Your task to perform on an android device: What's the weather going to be tomorrow? Image 0: 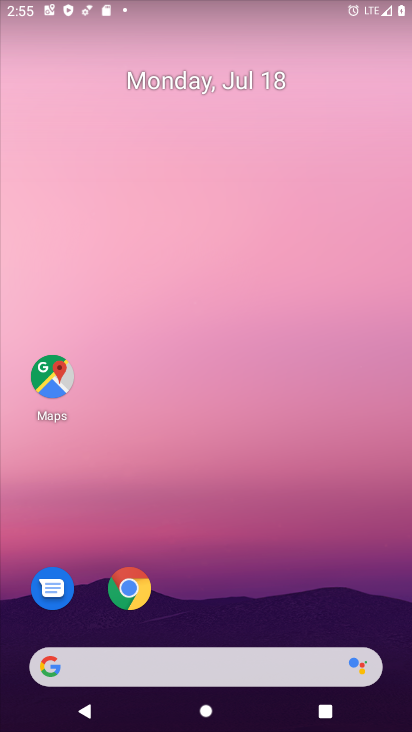
Step 0: click (215, 681)
Your task to perform on an android device: What's the weather going to be tomorrow? Image 1: 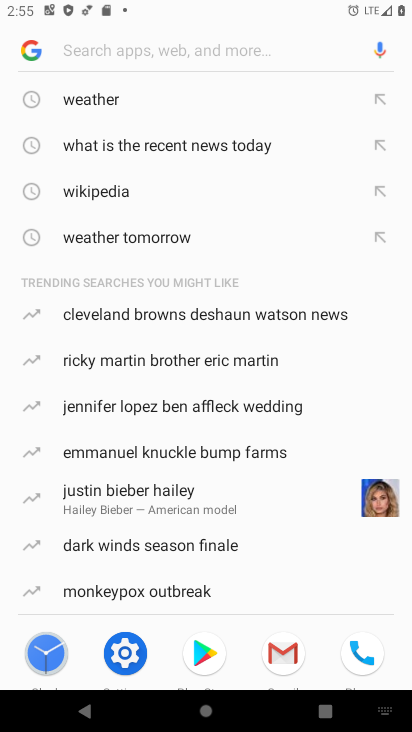
Step 1: click (111, 100)
Your task to perform on an android device: What's the weather going to be tomorrow? Image 2: 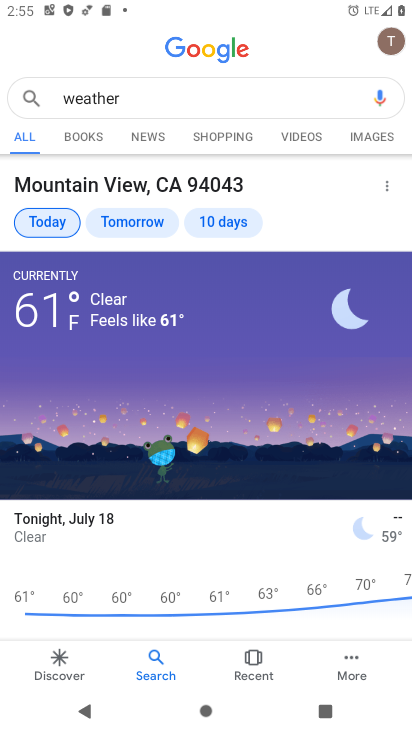
Step 2: click (131, 224)
Your task to perform on an android device: What's the weather going to be tomorrow? Image 3: 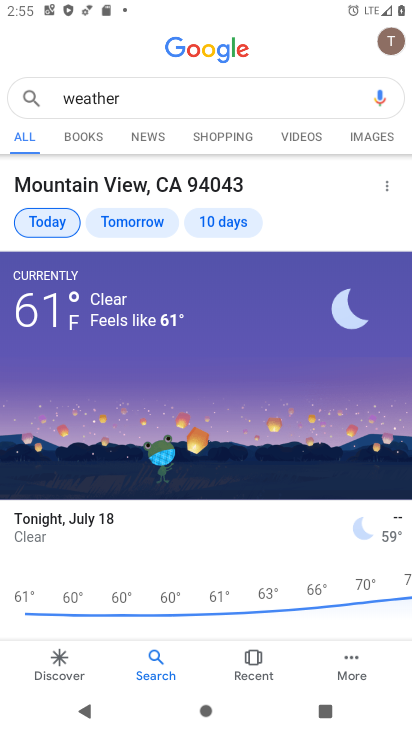
Step 3: click (133, 224)
Your task to perform on an android device: What's the weather going to be tomorrow? Image 4: 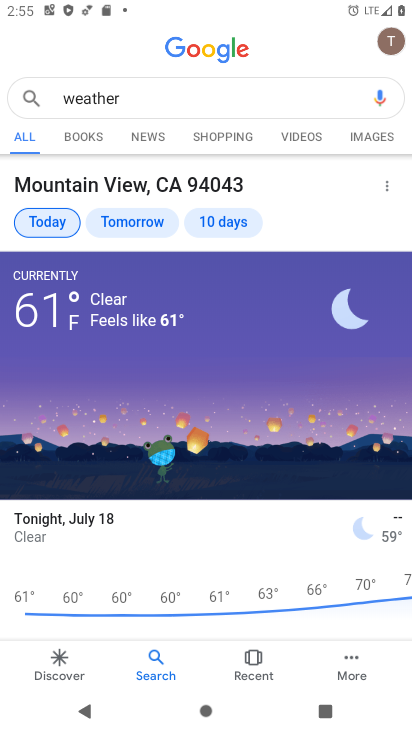
Step 4: click (139, 223)
Your task to perform on an android device: What's the weather going to be tomorrow? Image 5: 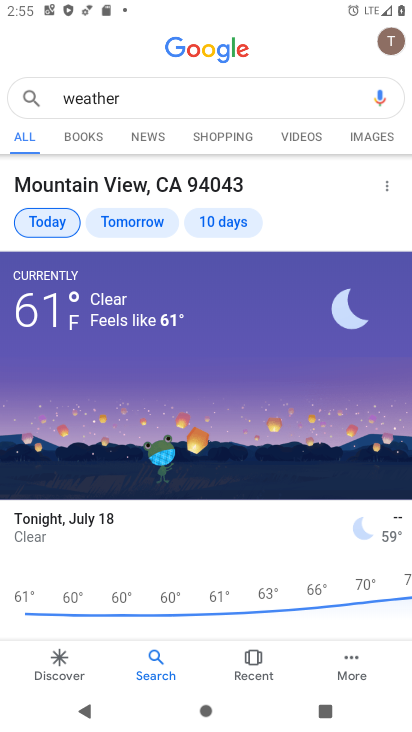
Step 5: task complete